Your task to perform on an android device: Go to location settings Image 0: 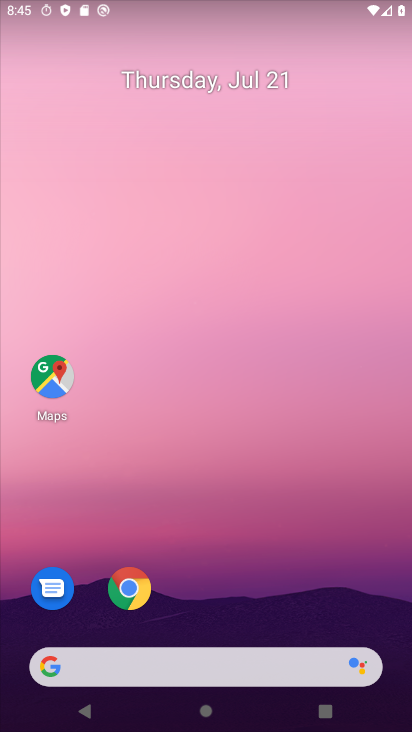
Step 0: drag from (264, 591) to (312, 133)
Your task to perform on an android device: Go to location settings Image 1: 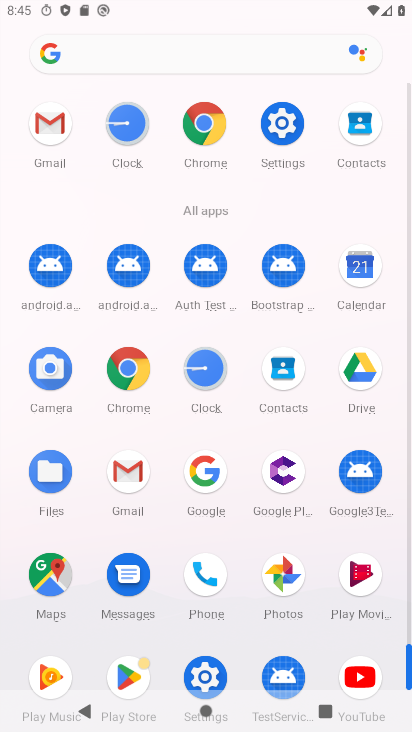
Step 1: click (281, 134)
Your task to perform on an android device: Go to location settings Image 2: 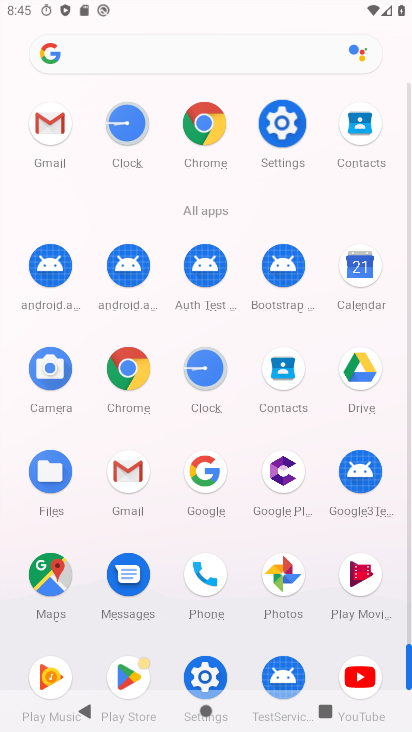
Step 2: click (281, 134)
Your task to perform on an android device: Go to location settings Image 3: 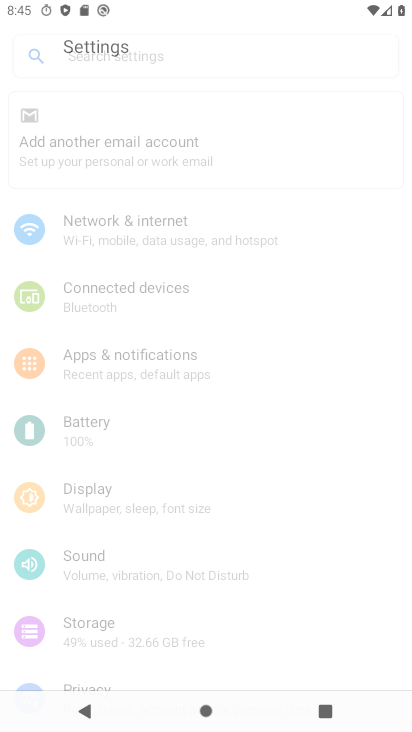
Step 3: click (288, 131)
Your task to perform on an android device: Go to location settings Image 4: 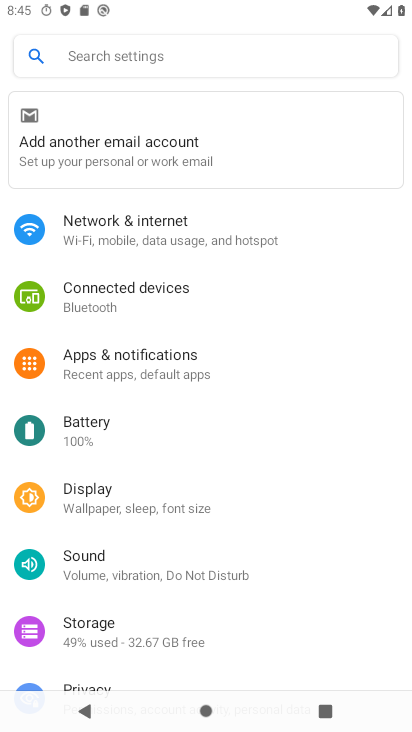
Step 4: drag from (120, 472) to (126, 152)
Your task to perform on an android device: Go to location settings Image 5: 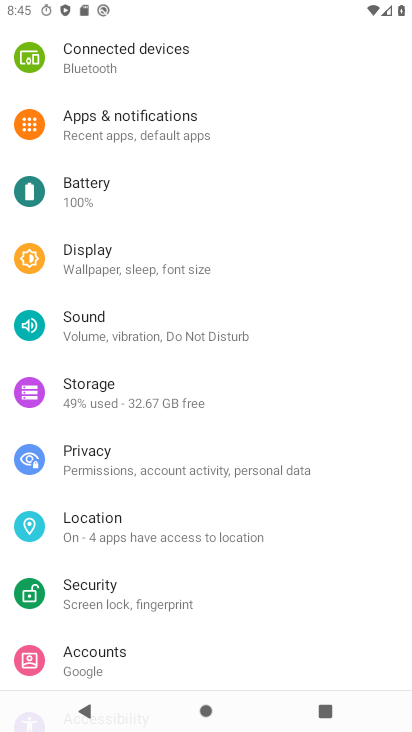
Step 5: drag from (134, 447) to (110, 224)
Your task to perform on an android device: Go to location settings Image 6: 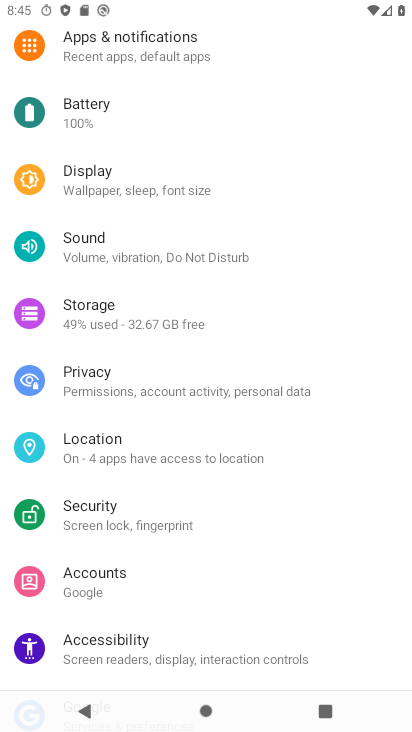
Step 6: click (113, 442)
Your task to perform on an android device: Go to location settings Image 7: 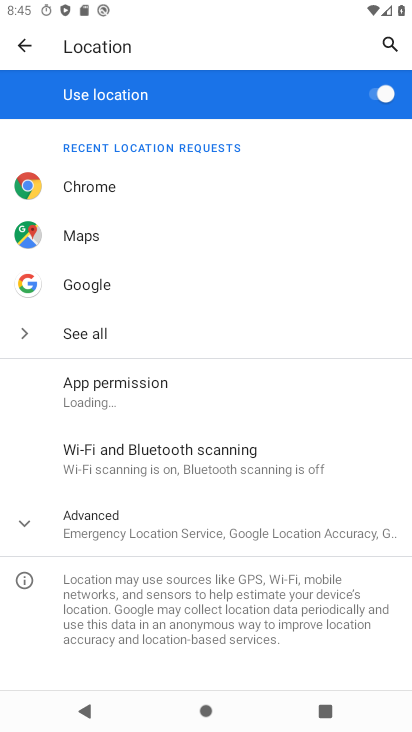
Step 7: task complete